Your task to perform on an android device: add a label to a message in the gmail app Image 0: 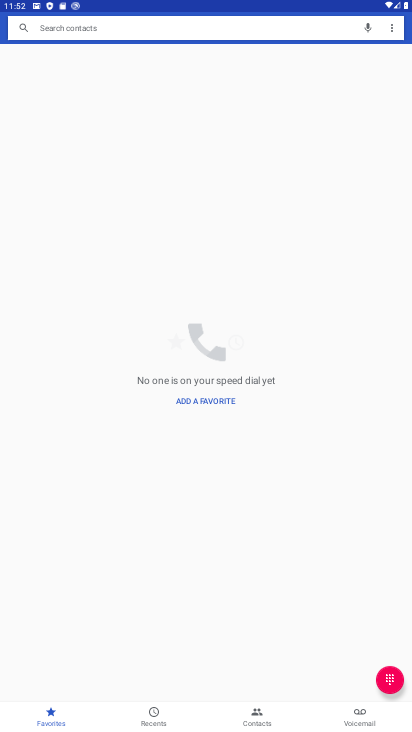
Step 0: press home button
Your task to perform on an android device: add a label to a message in the gmail app Image 1: 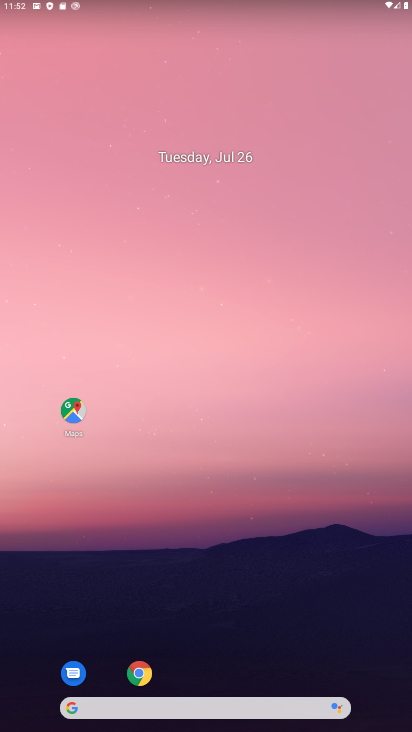
Step 1: drag from (205, 664) to (213, 355)
Your task to perform on an android device: add a label to a message in the gmail app Image 2: 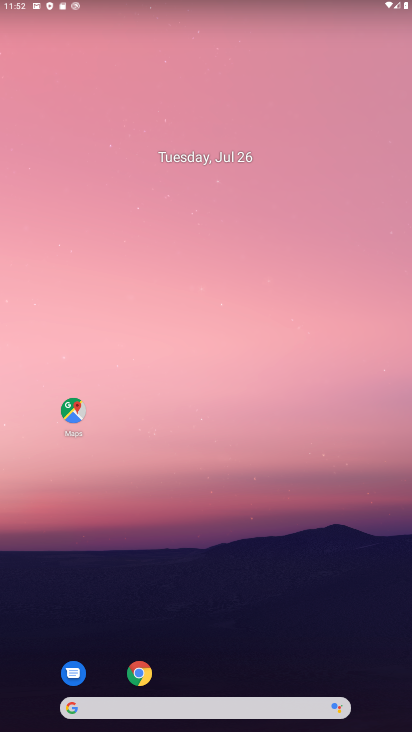
Step 2: drag from (249, 678) to (254, 72)
Your task to perform on an android device: add a label to a message in the gmail app Image 3: 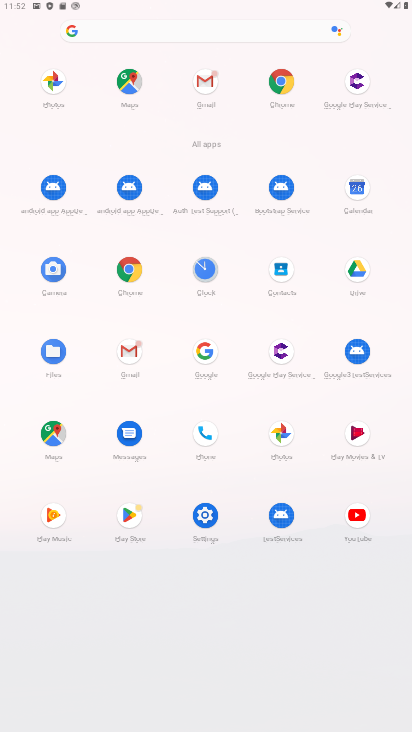
Step 3: click (138, 349)
Your task to perform on an android device: add a label to a message in the gmail app Image 4: 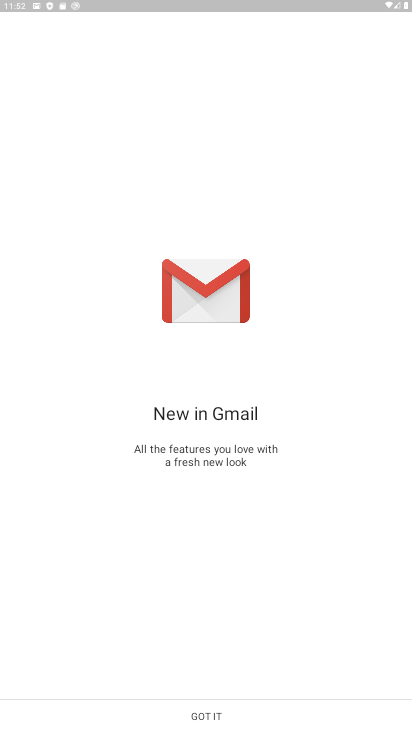
Step 4: click (219, 703)
Your task to perform on an android device: add a label to a message in the gmail app Image 5: 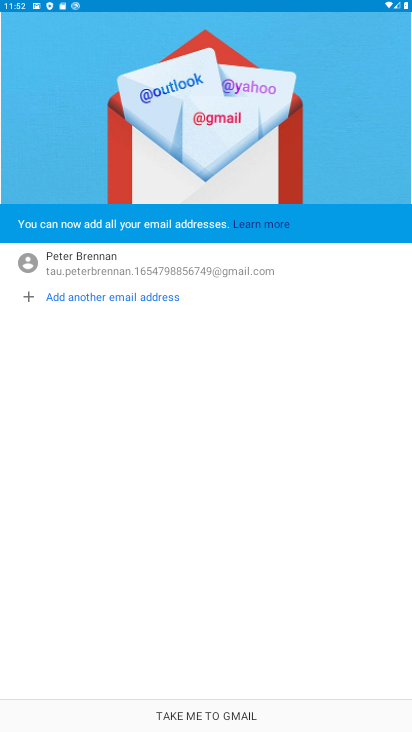
Step 5: click (219, 707)
Your task to perform on an android device: add a label to a message in the gmail app Image 6: 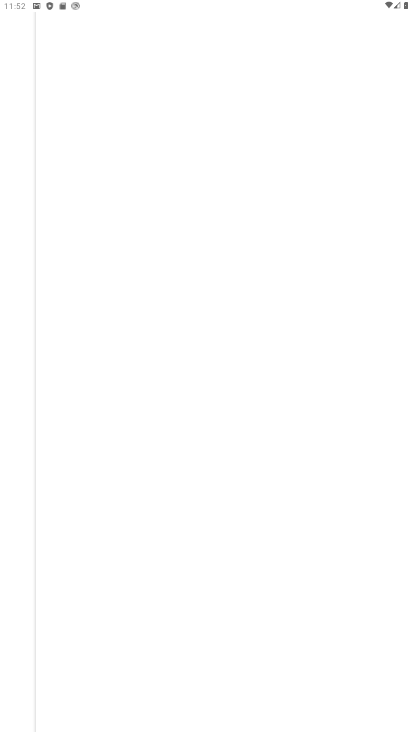
Step 6: click (217, 724)
Your task to perform on an android device: add a label to a message in the gmail app Image 7: 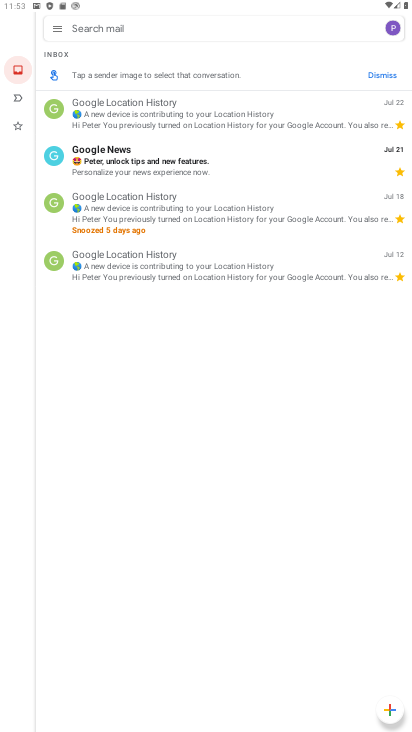
Step 7: click (86, 102)
Your task to perform on an android device: add a label to a message in the gmail app Image 8: 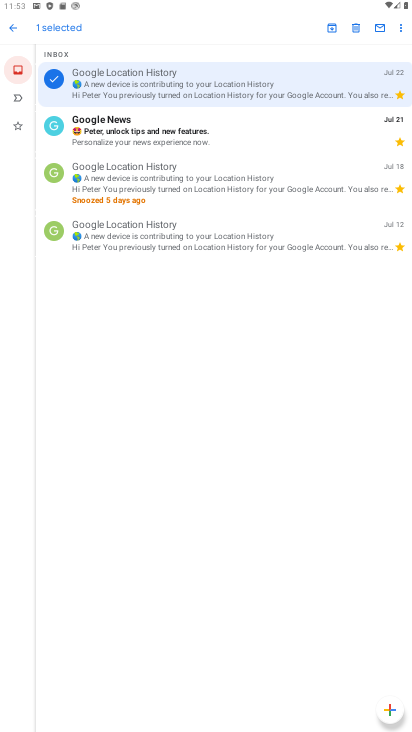
Step 8: click (406, 27)
Your task to perform on an android device: add a label to a message in the gmail app Image 9: 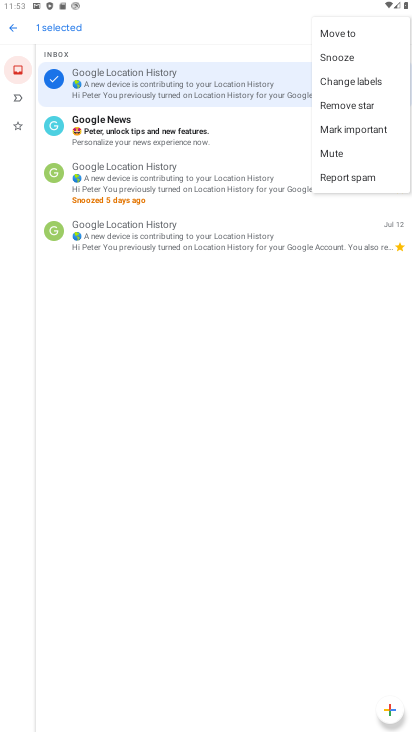
Step 9: click (357, 79)
Your task to perform on an android device: add a label to a message in the gmail app Image 10: 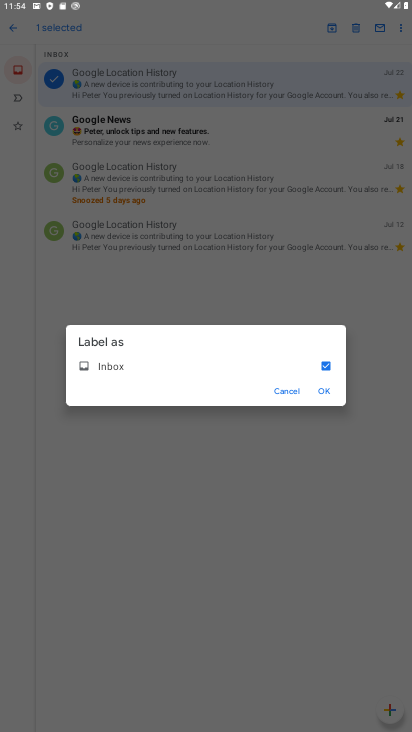
Step 10: click (331, 385)
Your task to perform on an android device: add a label to a message in the gmail app Image 11: 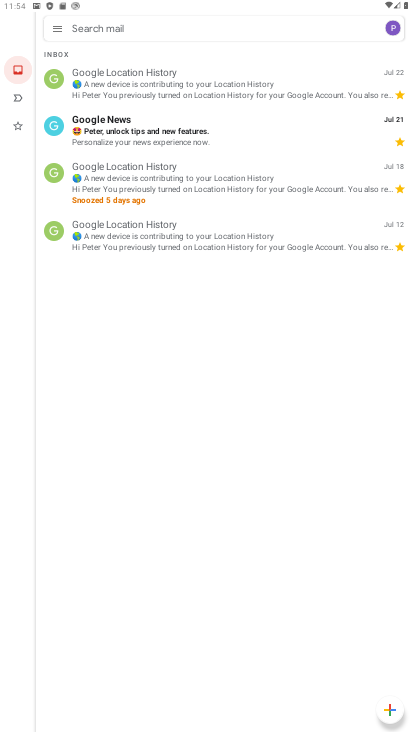
Step 11: task complete